Your task to perform on an android device: Turn on the flashlight Image 0: 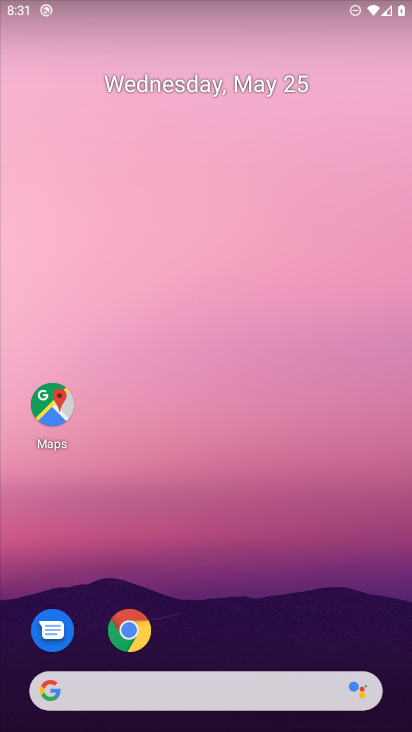
Step 0: drag from (267, 1) to (284, 422)
Your task to perform on an android device: Turn on the flashlight Image 1: 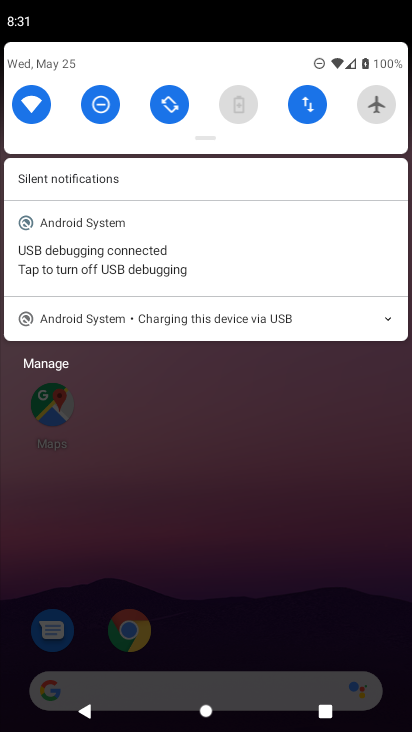
Step 1: drag from (299, 93) to (315, 464)
Your task to perform on an android device: Turn on the flashlight Image 2: 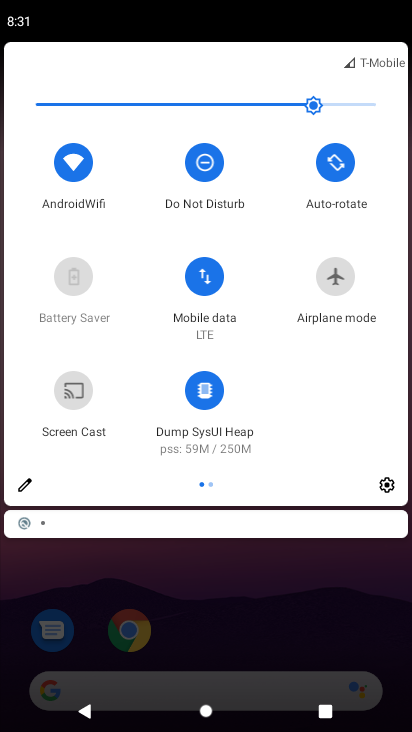
Step 2: drag from (379, 317) to (10, 381)
Your task to perform on an android device: Turn on the flashlight Image 3: 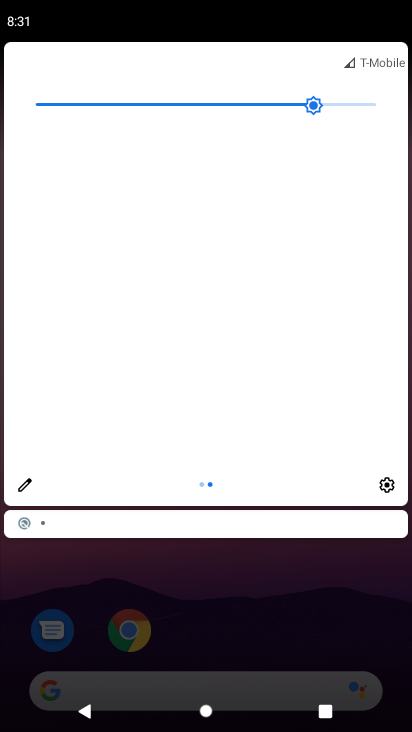
Step 3: click (23, 480)
Your task to perform on an android device: Turn on the flashlight Image 4: 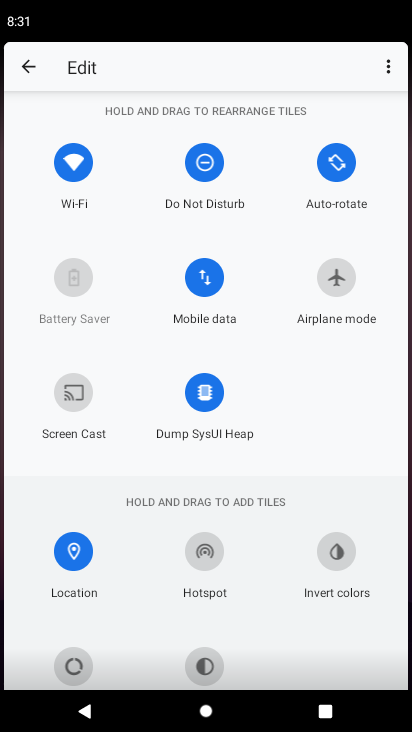
Step 4: task complete